Your task to perform on an android device: change keyboard looks Image 0: 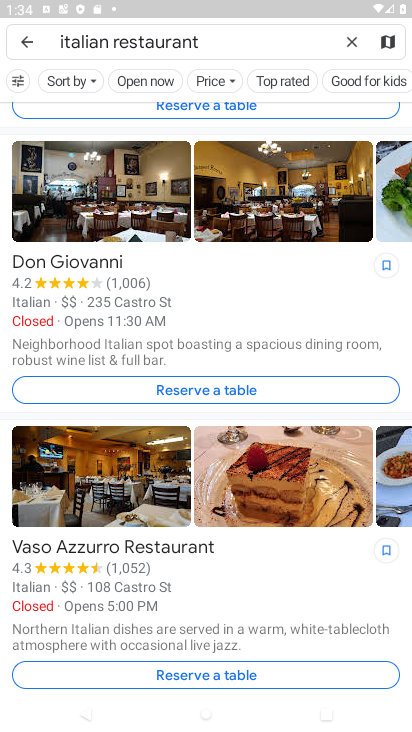
Step 0: press home button
Your task to perform on an android device: change keyboard looks Image 1: 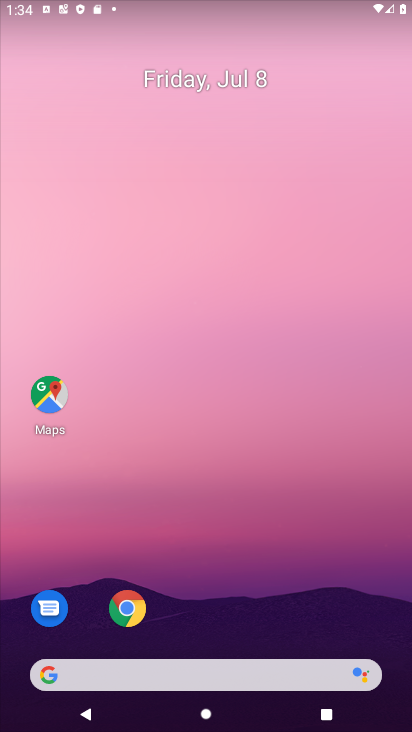
Step 1: drag from (360, 619) to (331, 128)
Your task to perform on an android device: change keyboard looks Image 2: 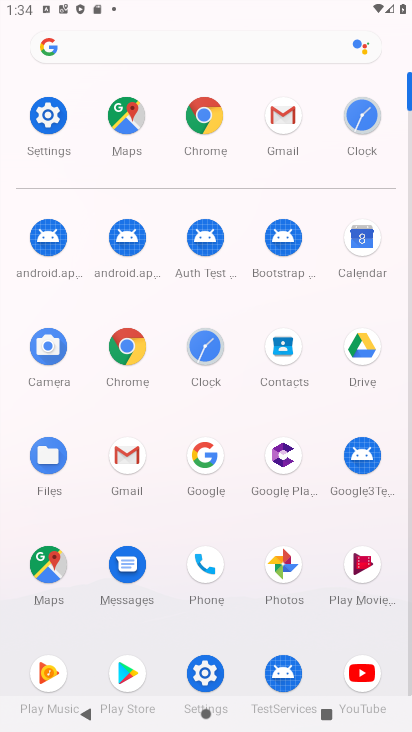
Step 2: click (209, 670)
Your task to perform on an android device: change keyboard looks Image 3: 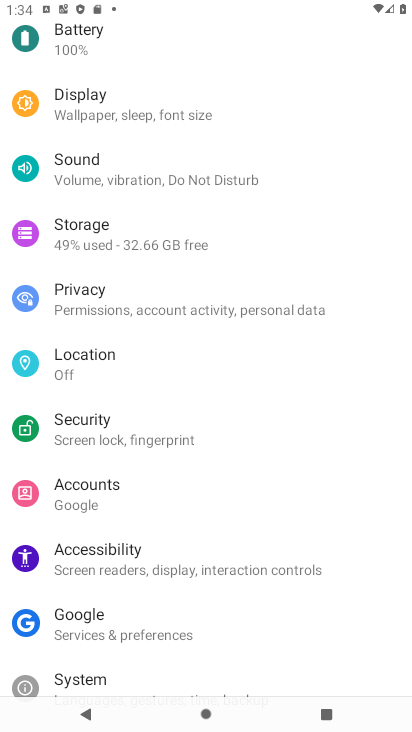
Step 3: drag from (317, 656) to (344, 229)
Your task to perform on an android device: change keyboard looks Image 4: 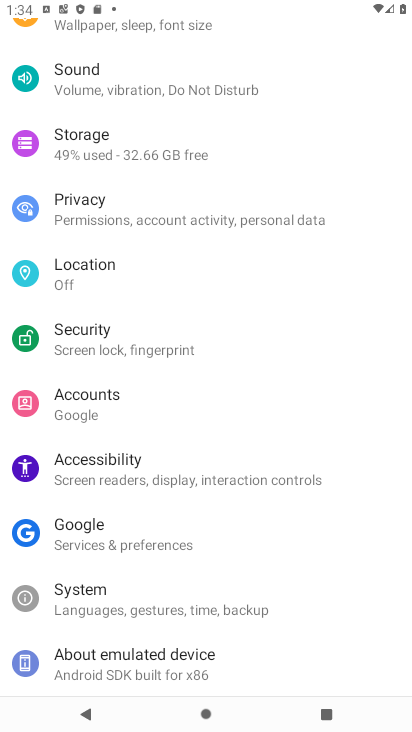
Step 4: click (67, 603)
Your task to perform on an android device: change keyboard looks Image 5: 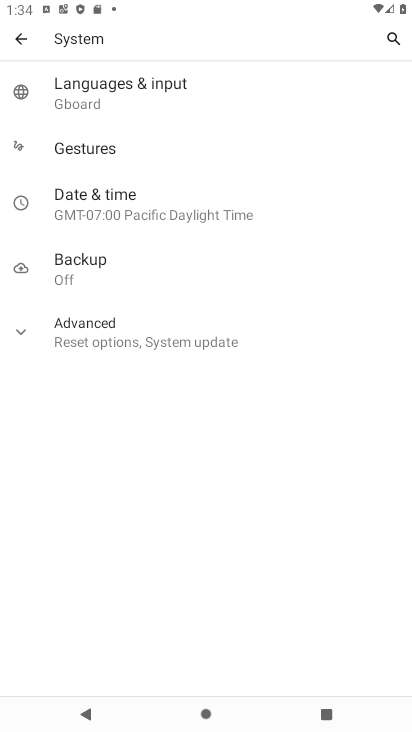
Step 5: click (89, 88)
Your task to perform on an android device: change keyboard looks Image 6: 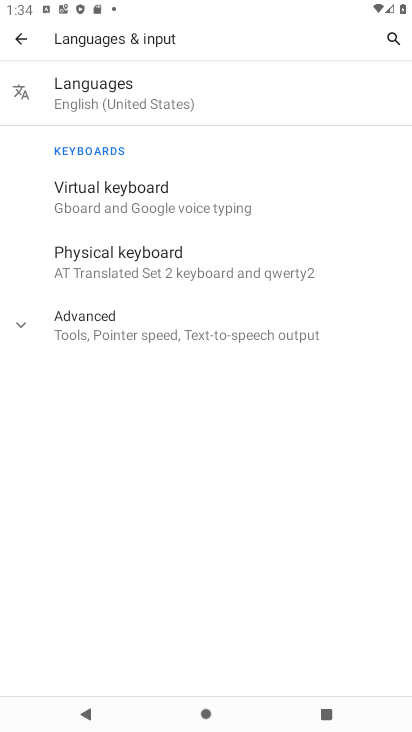
Step 6: click (92, 254)
Your task to perform on an android device: change keyboard looks Image 7: 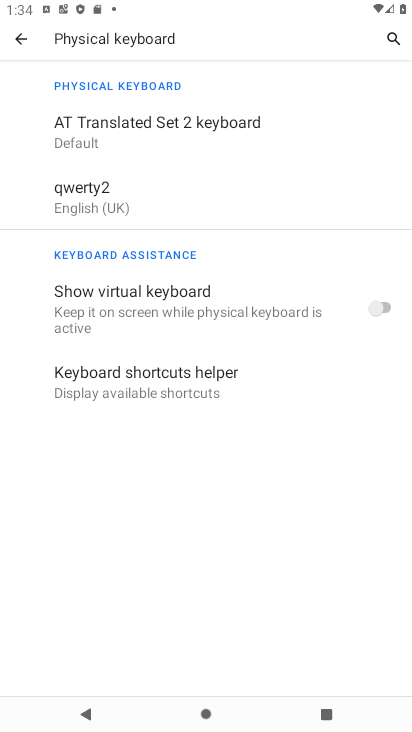
Step 7: click (86, 126)
Your task to perform on an android device: change keyboard looks Image 8: 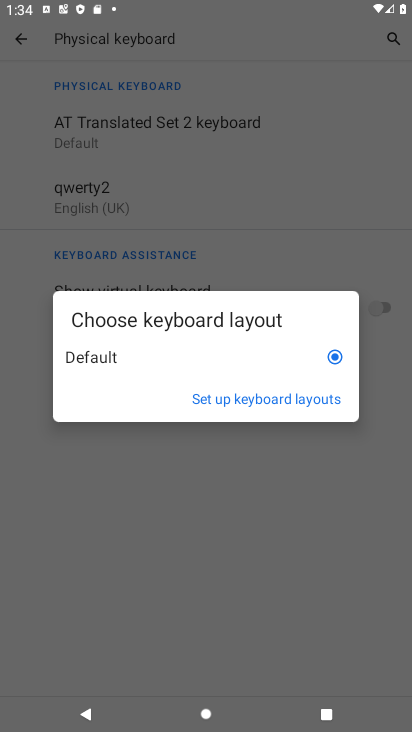
Step 8: click (264, 404)
Your task to perform on an android device: change keyboard looks Image 9: 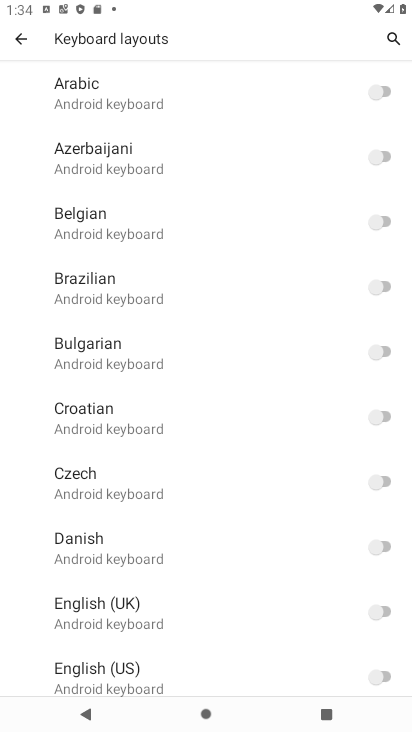
Step 9: click (384, 610)
Your task to perform on an android device: change keyboard looks Image 10: 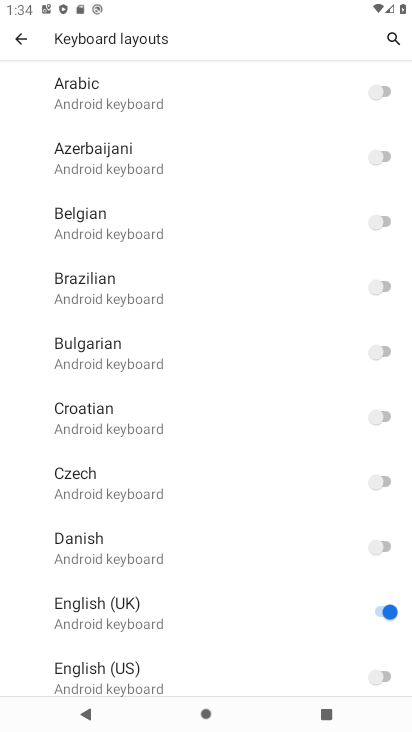
Step 10: task complete